Your task to perform on an android device: Go to wifi settings Image 0: 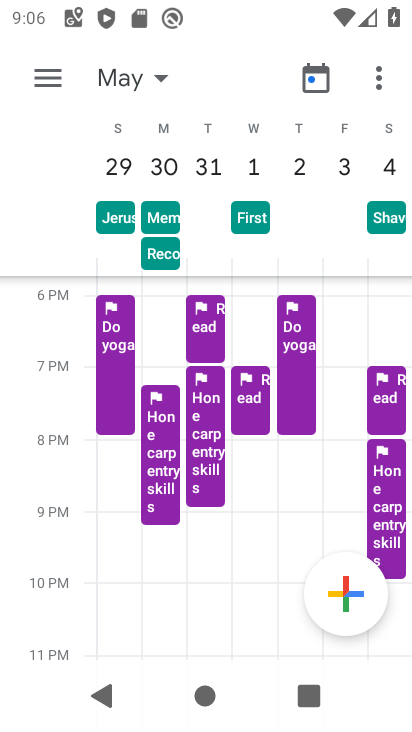
Step 0: press home button
Your task to perform on an android device: Go to wifi settings Image 1: 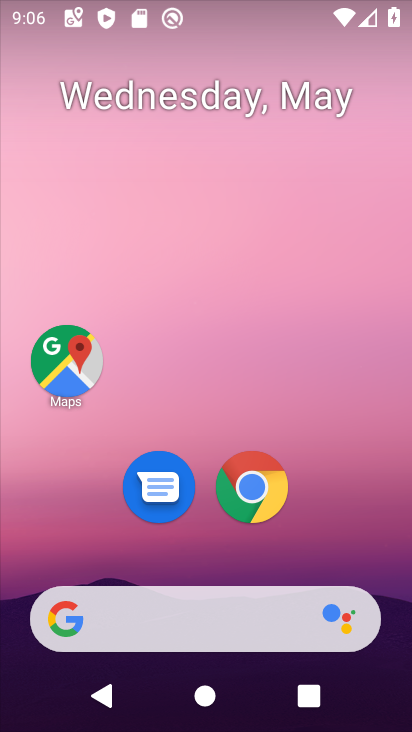
Step 1: drag from (333, 538) to (234, 198)
Your task to perform on an android device: Go to wifi settings Image 2: 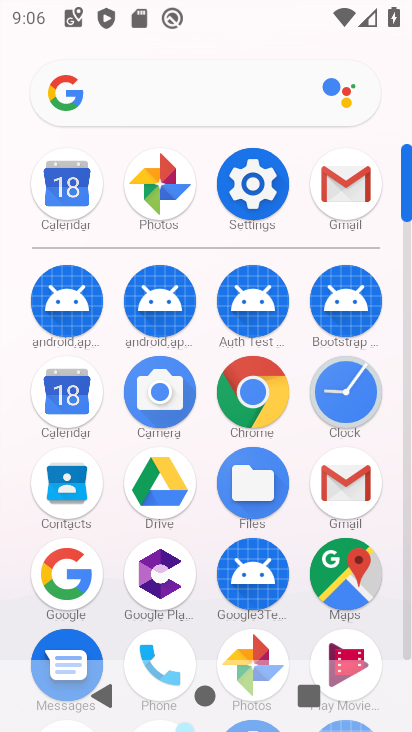
Step 2: click (251, 175)
Your task to perform on an android device: Go to wifi settings Image 3: 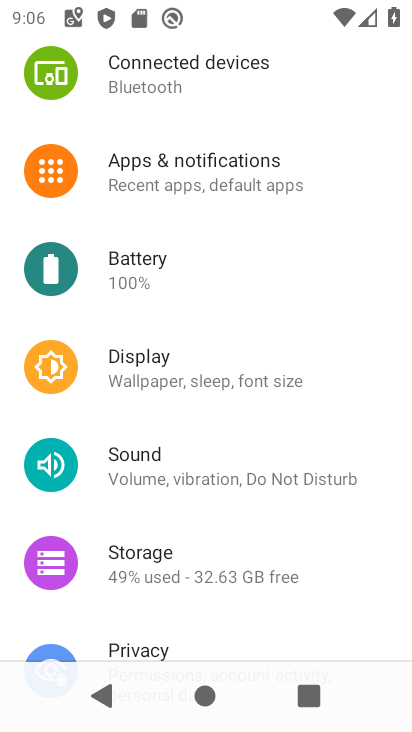
Step 3: drag from (171, 127) to (215, 533)
Your task to perform on an android device: Go to wifi settings Image 4: 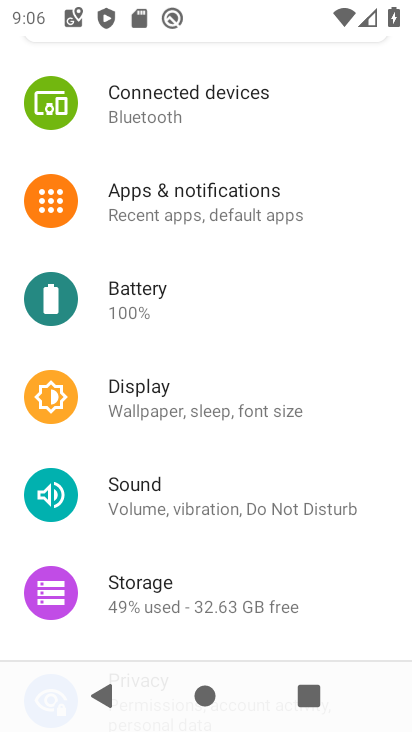
Step 4: drag from (193, 160) to (187, 473)
Your task to perform on an android device: Go to wifi settings Image 5: 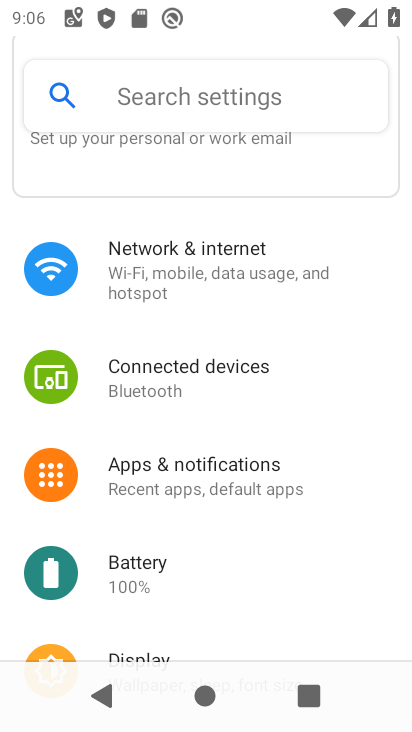
Step 5: click (153, 252)
Your task to perform on an android device: Go to wifi settings Image 6: 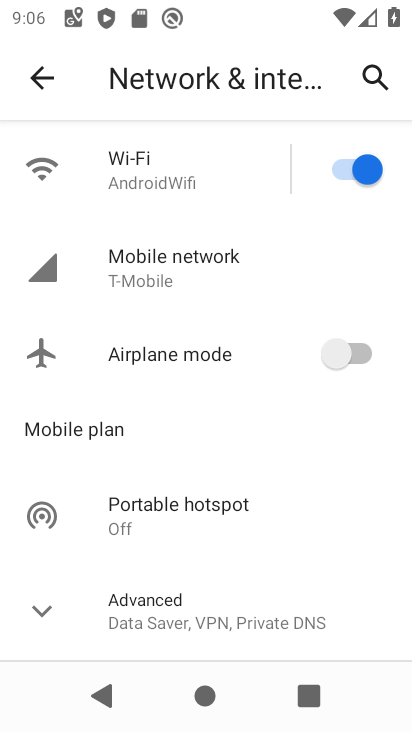
Step 6: task complete